Your task to perform on an android device: Search for pizza restaurants on Maps Image 0: 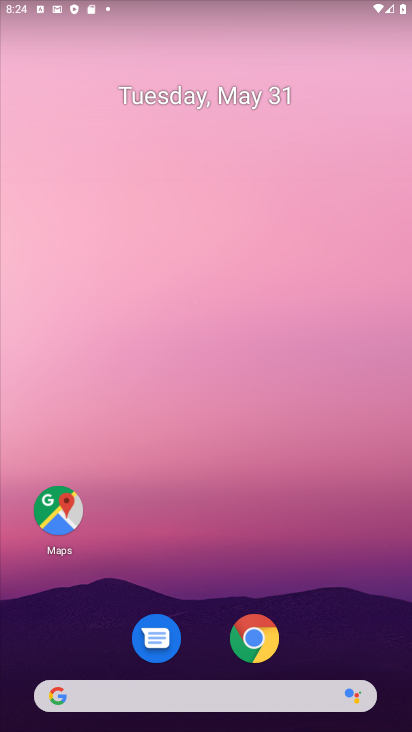
Step 0: click (64, 510)
Your task to perform on an android device: Search for pizza restaurants on Maps Image 1: 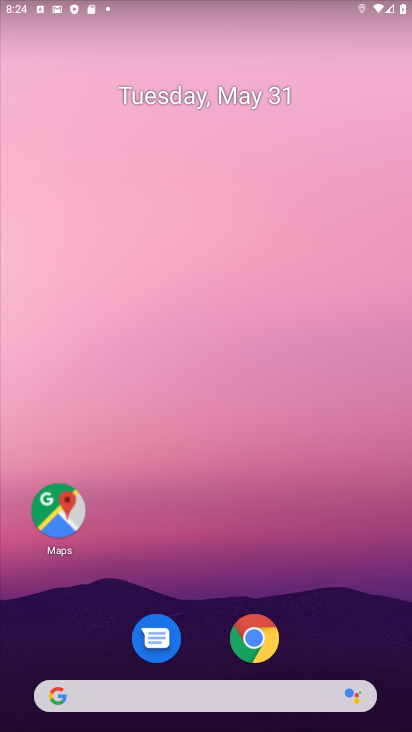
Step 1: click (64, 510)
Your task to perform on an android device: Search for pizza restaurants on Maps Image 2: 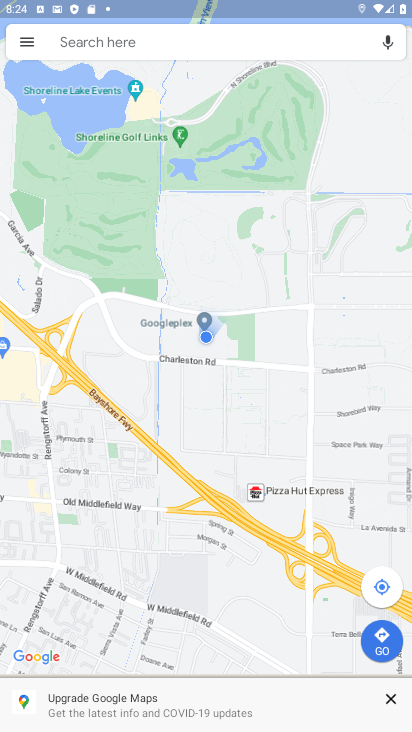
Step 2: click (232, 43)
Your task to perform on an android device: Search for pizza restaurants on Maps Image 3: 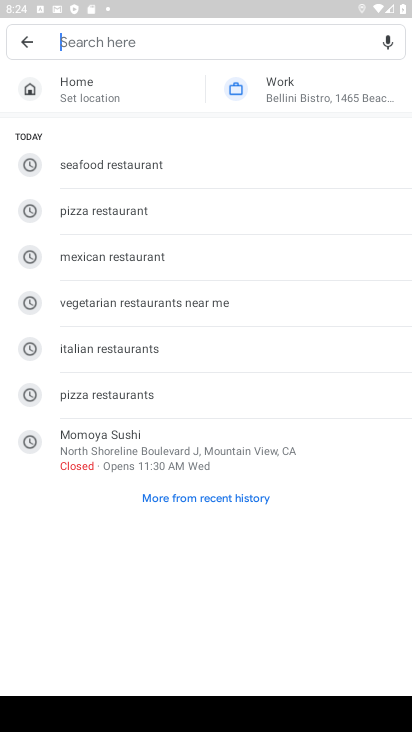
Step 3: click (156, 208)
Your task to perform on an android device: Search for pizza restaurants on Maps Image 4: 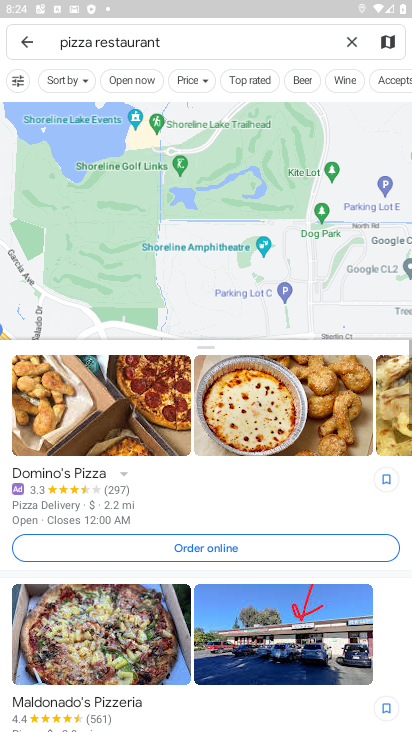
Step 4: task complete